Your task to perform on an android device: open wifi settings Image 0: 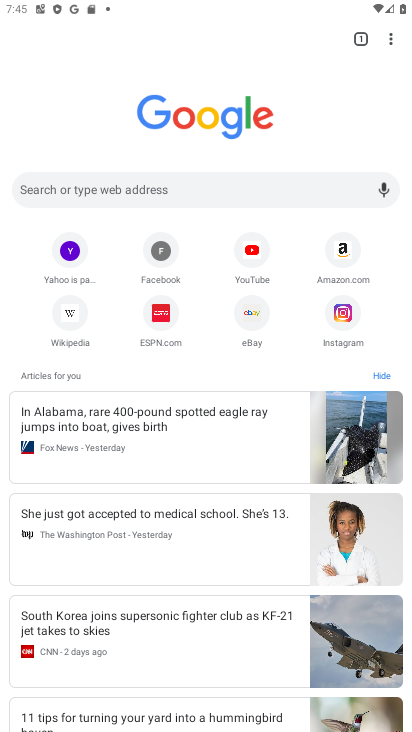
Step 0: press home button
Your task to perform on an android device: open wifi settings Image 1: 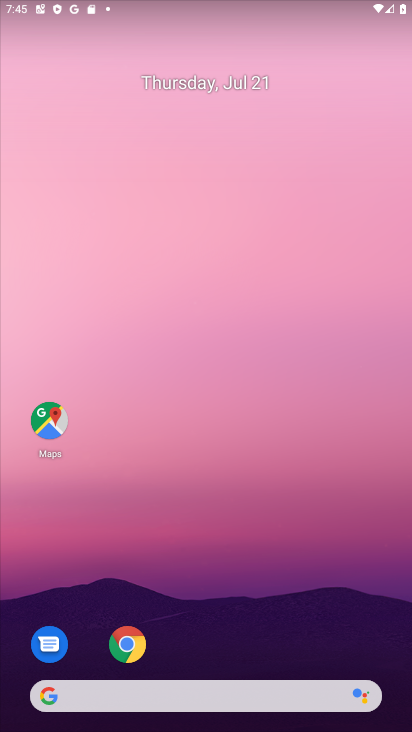
Step 1: drag from (236, 604) to (252, 279)
Your task to perform on an android device: open wifi settings Image 2: 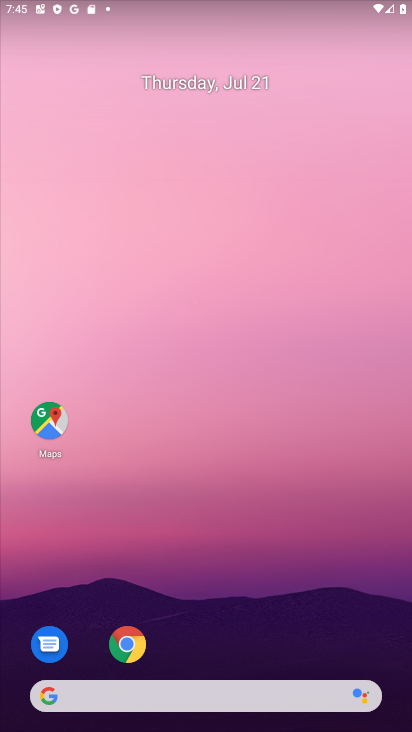
Step 2: drag from (207, 543) to (211, 171)
Your task to perform on an android device: open wifi settings Image 3: 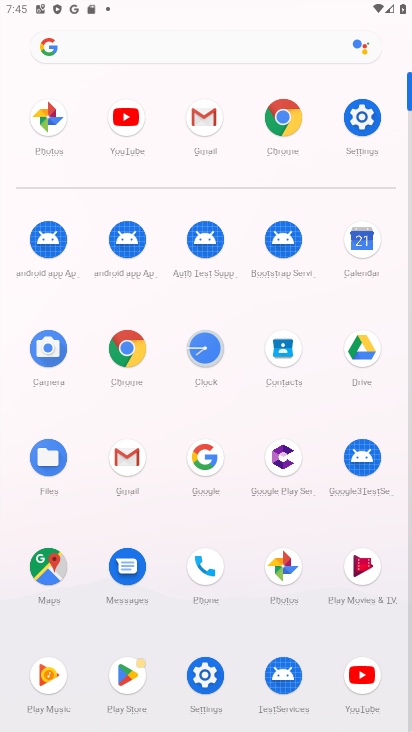
Step 3: click (352, 121)
Your task to perform on an android device: open wifi settings Image 4: 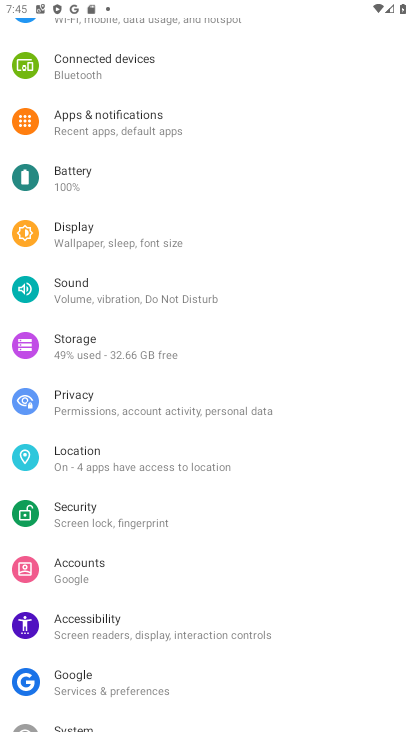
Step 4: drag from (217, 103) to (263, 295)
Your task to perform on an android device: open wifi settings Image 5: 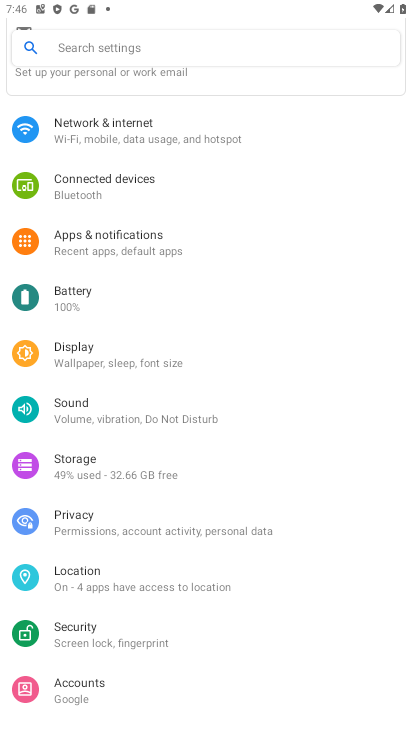
Step 5: click (148, 124)
Your task to perform on an android device: open wifi settings Image 6: 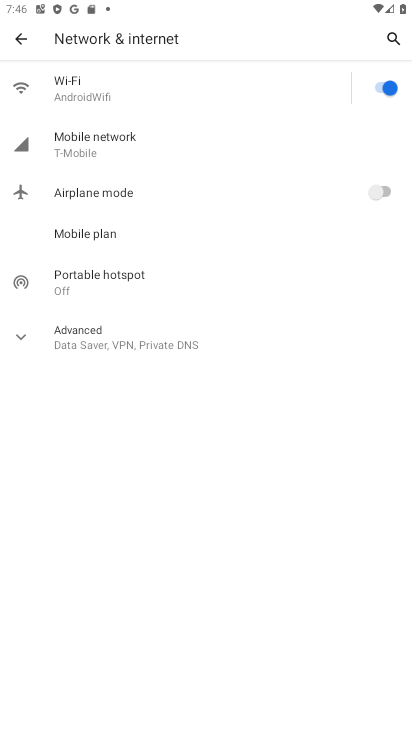
Step 6: task complete